Your task to perform on an android device: Search for Mexican restaurants on Maps Image 0: 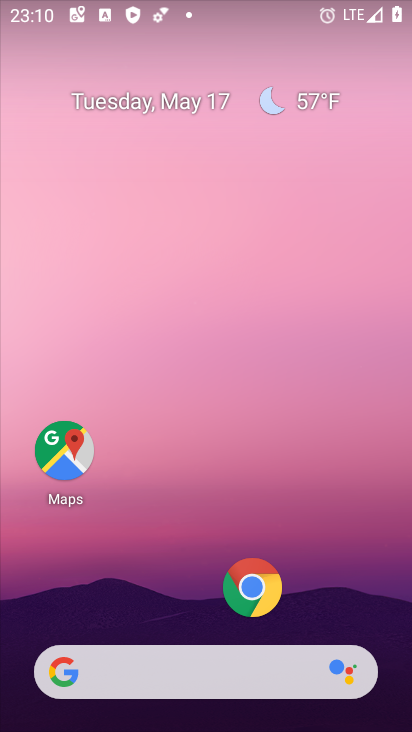
Step 0: click (48, 439)
Your task to perform on an android device: Search for Mexican restaurants on Maps Image 1: 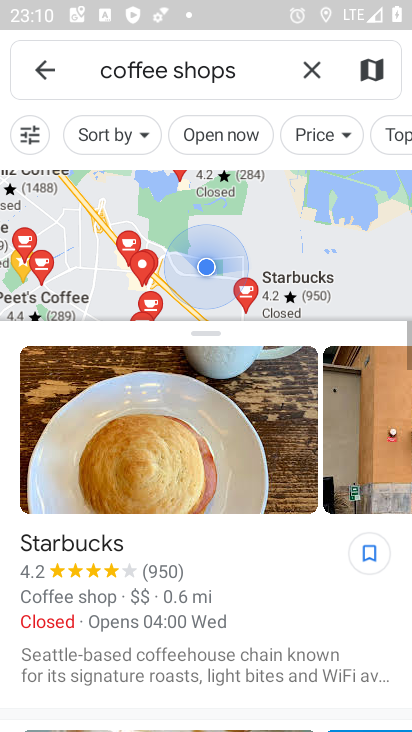
Step 1: click (319, 66)
Your task to perform on an android device: Search for Mexican restaurants on Maps Image 2: 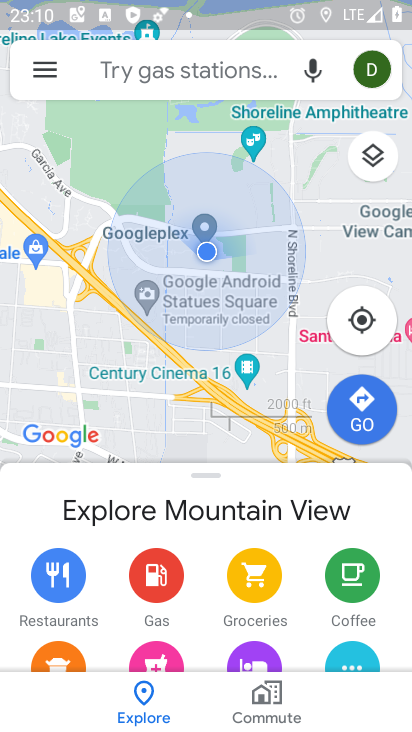
Step 2: click (155, 82)
Your task to perform on an android device: Search for Mexican restaurants on Maps Image 3: 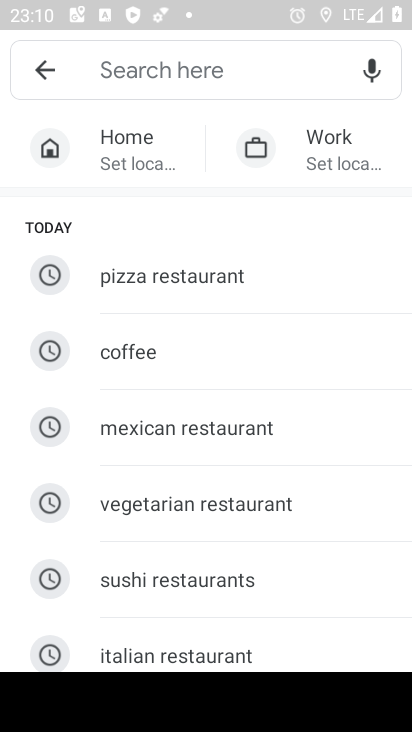
Step 3: click (168, 426)
Your task to perform on an android device: Search for Mexican restaurants on Maps Image 4: 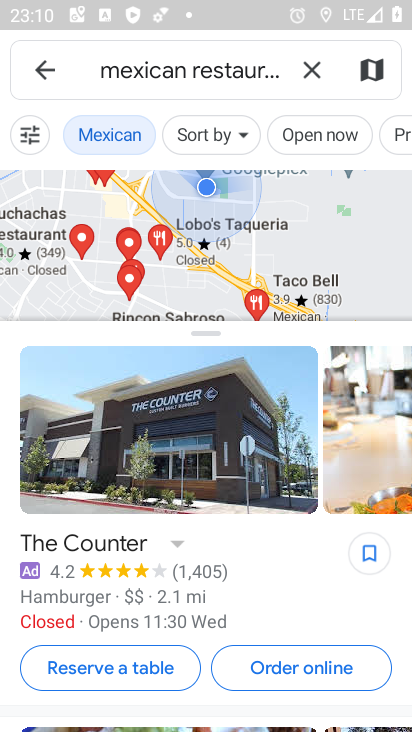
Step 4: task complete